Your task to perform on an android device: What's the weather going to be tomorrow? Image 0: 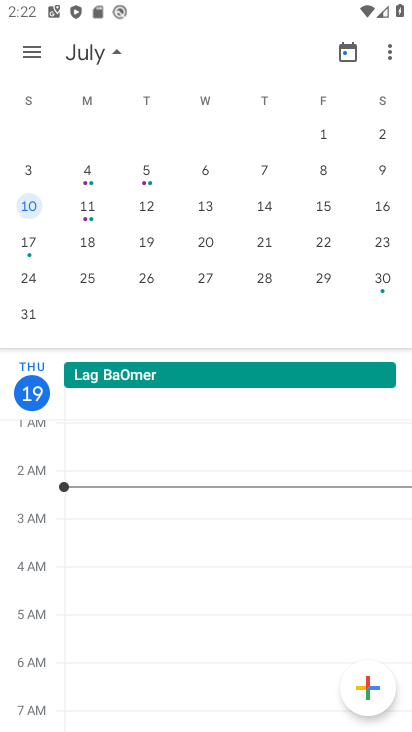
Step 0: press home button
Your task to perform on an android device: What's the weather going to be tomorrow? Image 1: 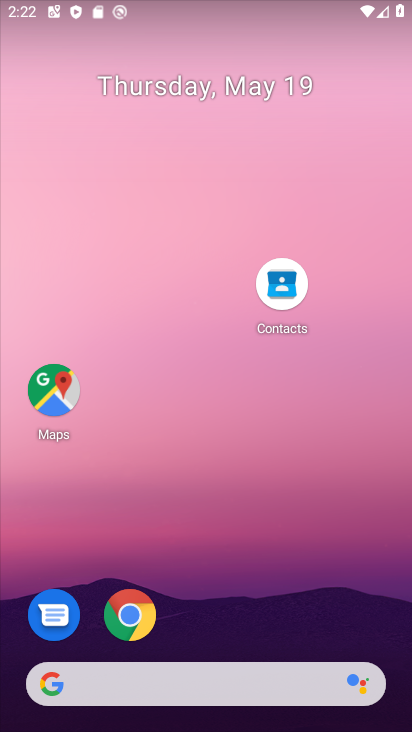
Step 1: drag from (184, 653) to (228, 178)
Your task to perform on an android device: What's the weather going to be tomorrow? Image 2: 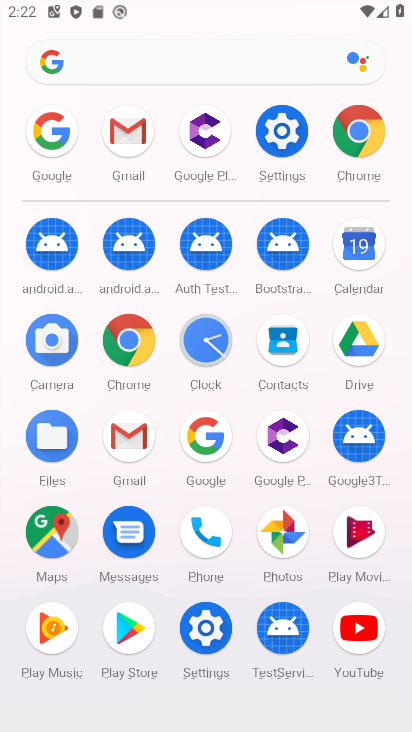
Step 2: click (229, 449)
Your task to perform on an android device: What's the weather going to be tomorrow? Image 3: 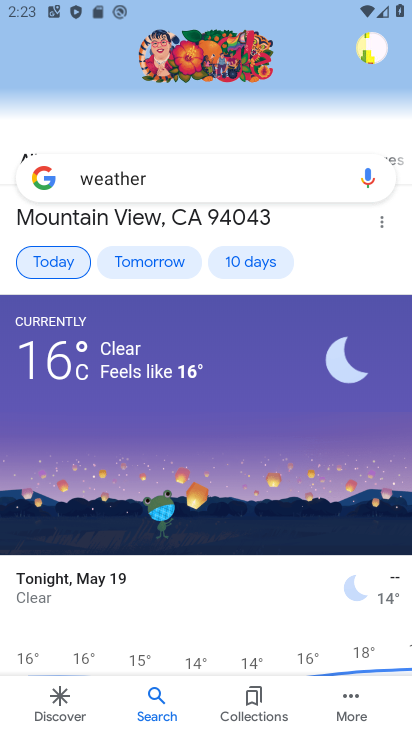
Step 3: click (167, 273)
Your task to perform on an android device: What's the weather going to be tomorrow? Image 4: 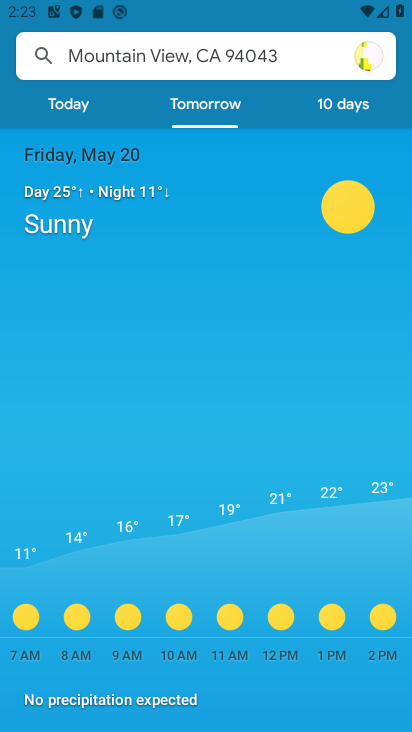
Step 4: task complete